Your task to perform on an android device: What's the weather today? Image 0: 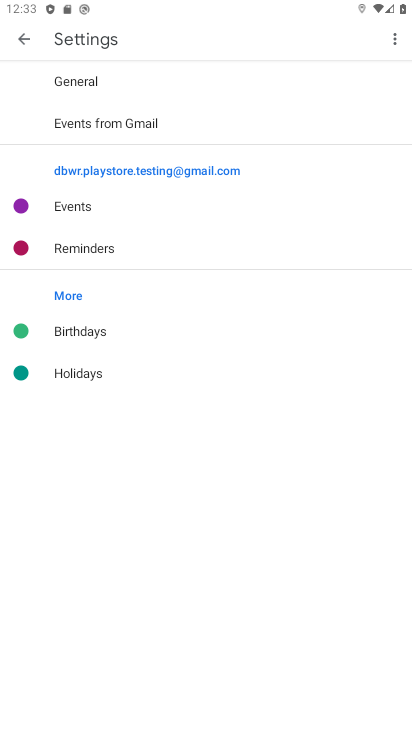
Step 0: press home button
Your task to perform on an android device: What's the weather today? Image 1: 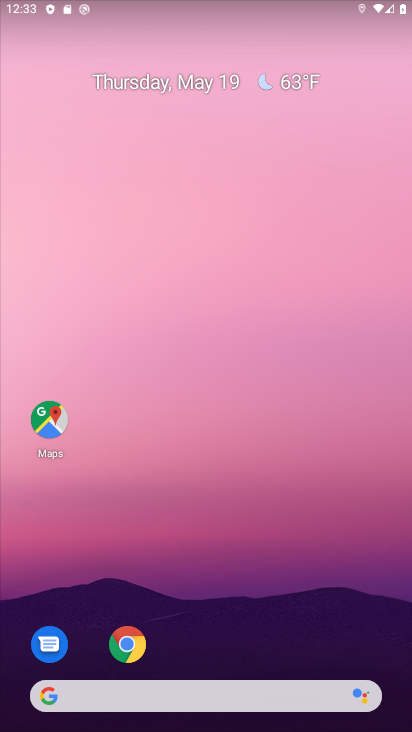
Step 1: click (302, 74)
Your task to perform on an android device: What's the weather today? Image 2: 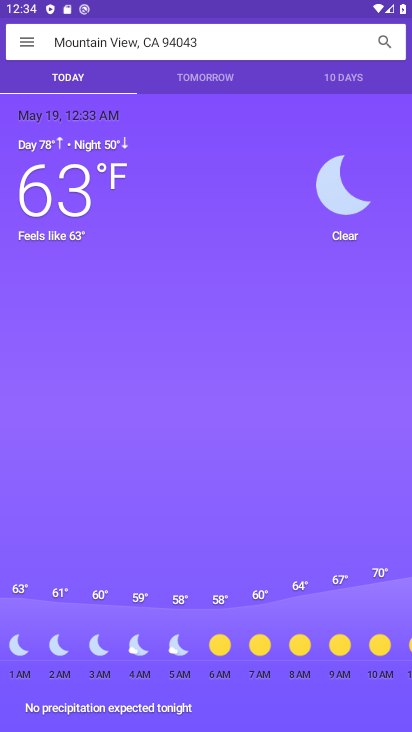
Step 2: task complete